Your task to perform on an android device: turn off improve location accuracy Image 0: 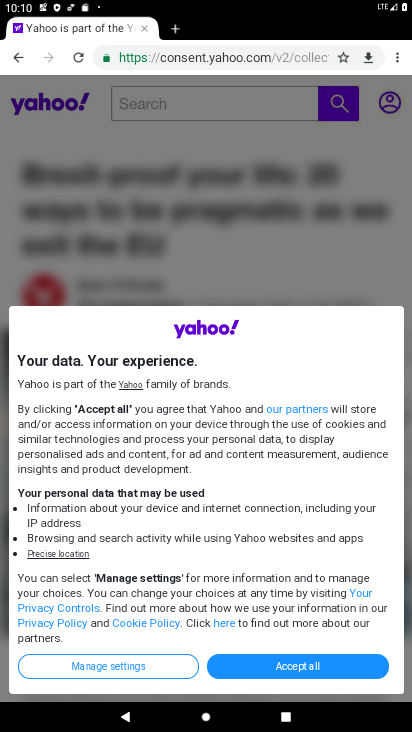
Step 0: click (274, 666)
Your task to perform on an android device: turn off improve location accuracy Image 1: 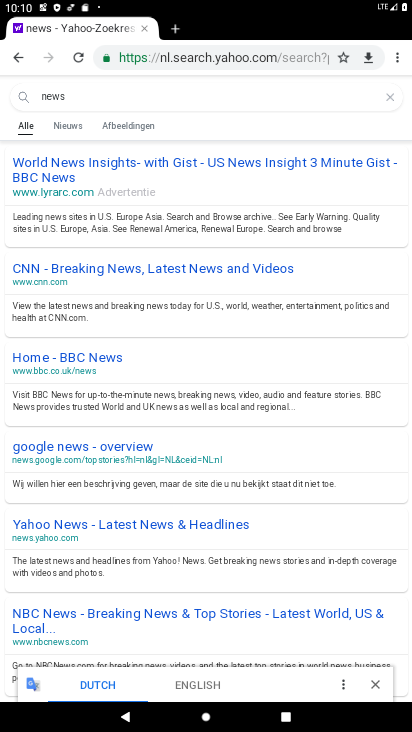
Step 1: press home button
Your task to perform on an android device: turn off improve location accuracy Image 2: 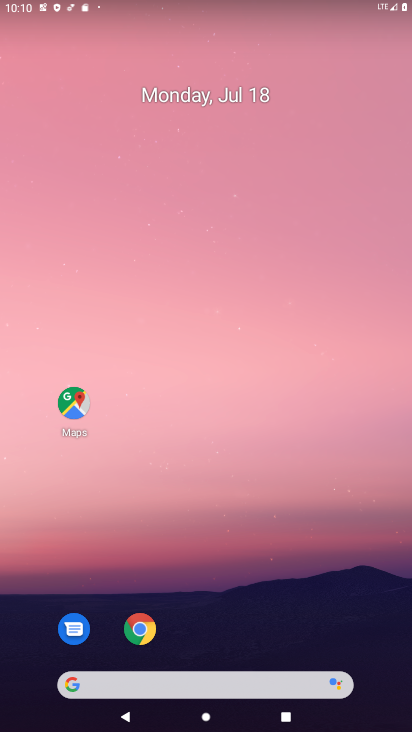
Step 2: drag from (199, 682) to (160, 268)
Your task to perform on an android device: turn off improve location accuracy Image 3: 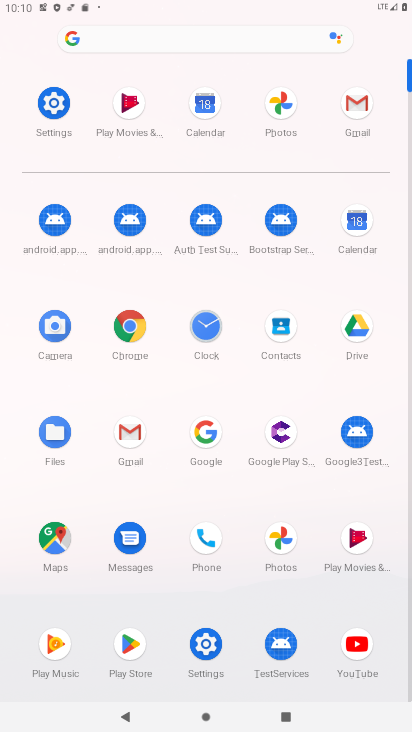
Step 3: click (44, 107)
Your task to perform on an android device: turn off improve location accuracy Image 4: 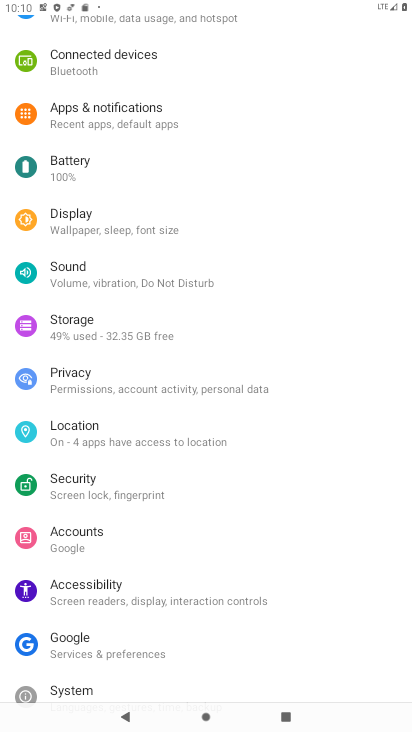
Step 4: click (93, 425)
Your task to perform on an android device: turn off improve location accuracy Image 5: 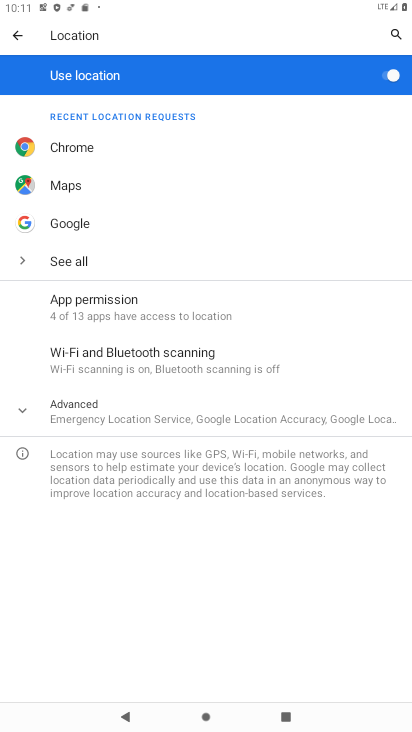
Step 5: click (110, 401)
Your task to perform on an android device: turn off improve location accuracy Image 6: 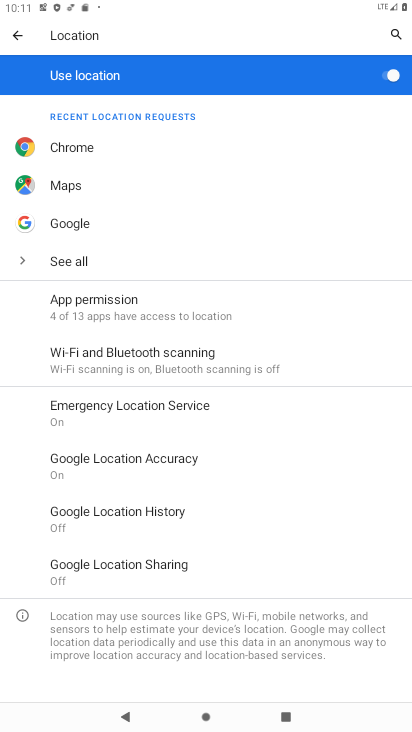
Step 6: click (183, 462)
Your task to perform on an android device: turn off improve location accuracy Image 7: 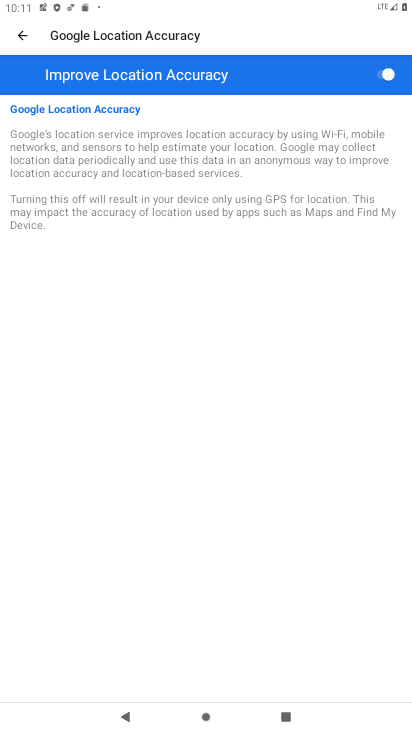
Step 7: click (384, 79)
Your task to perform on an android device: turn off improve location accuracy Image 8: 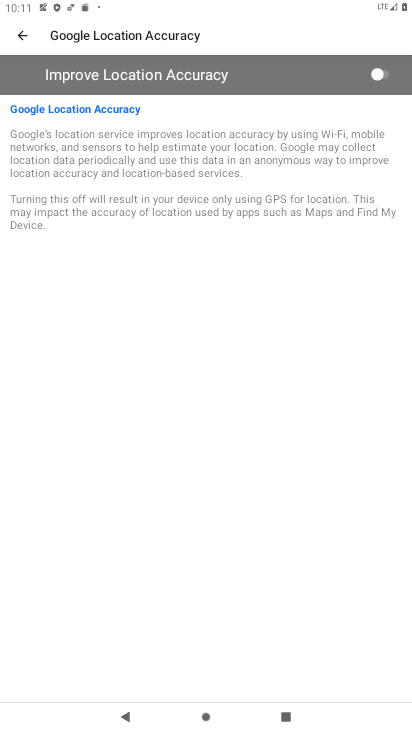
Step 8: task complete